Your task to perform on an android device: Go to battery settings Image 0: 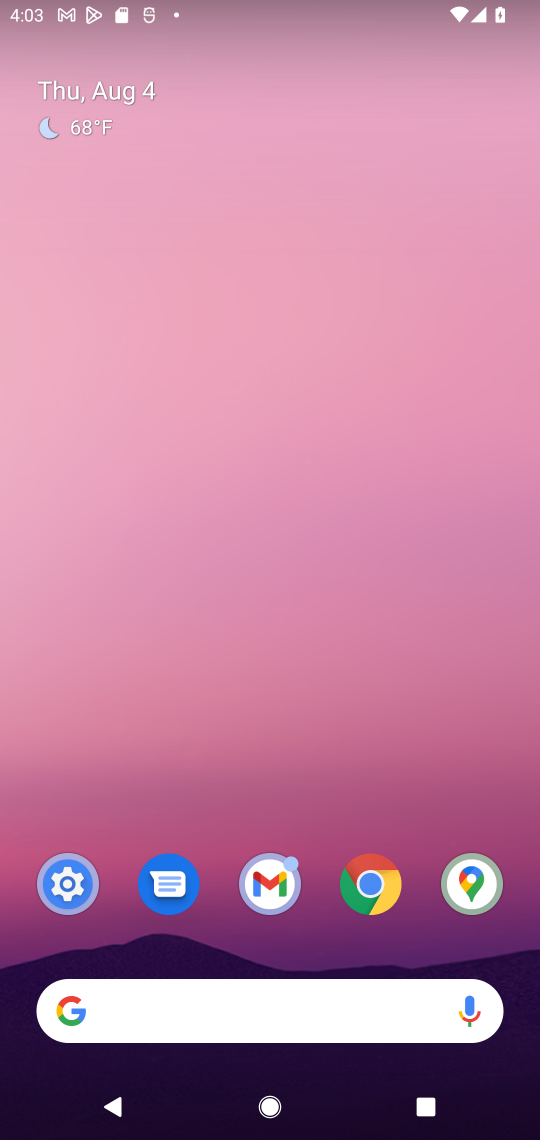
Step 0: click (81, 888)
Your task to perform on an android device: Go to battery settings Image 1: 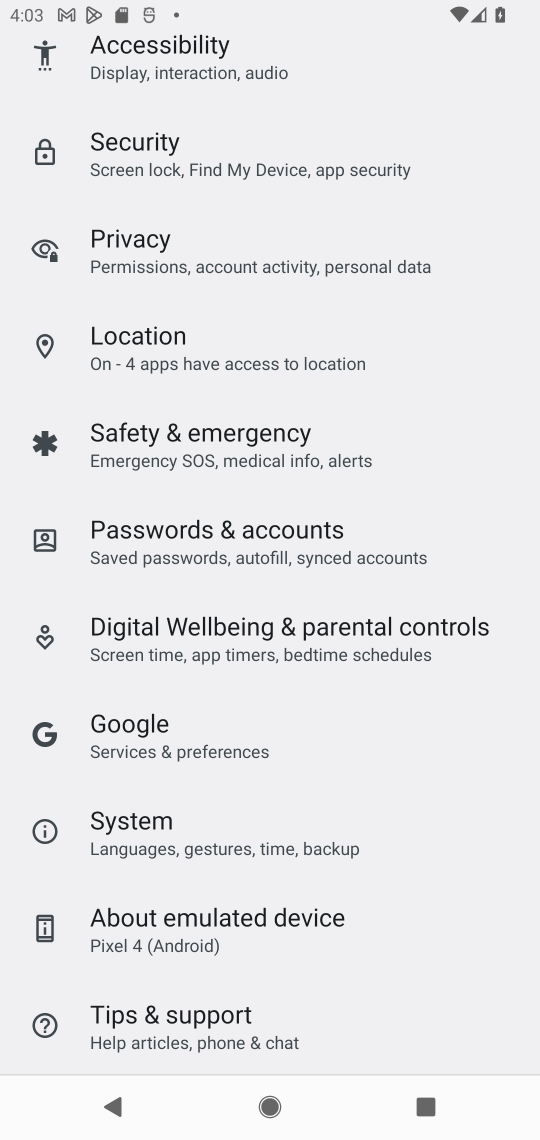
Step 1: drag from (231, 228) to (233, 881)
Your task to perform on an android device: Go to battery settings Image 2: 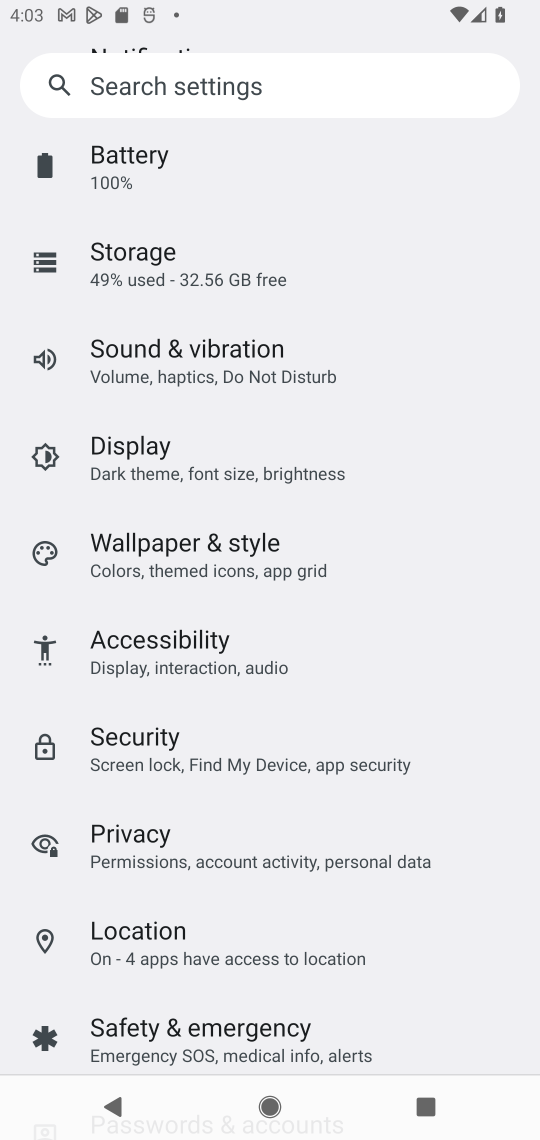
Step 2: click (238, 198)
Your task to perform on an android device: Go to battery settings Image 3: 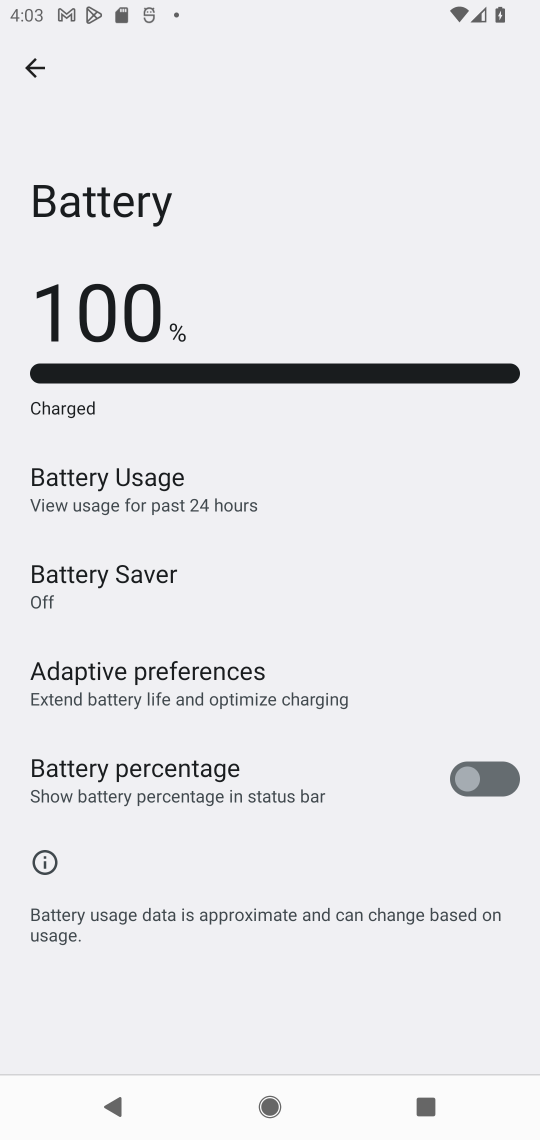
Step 3: task complete